Your task to perform on an android device: open device folders in google photos Image 0: 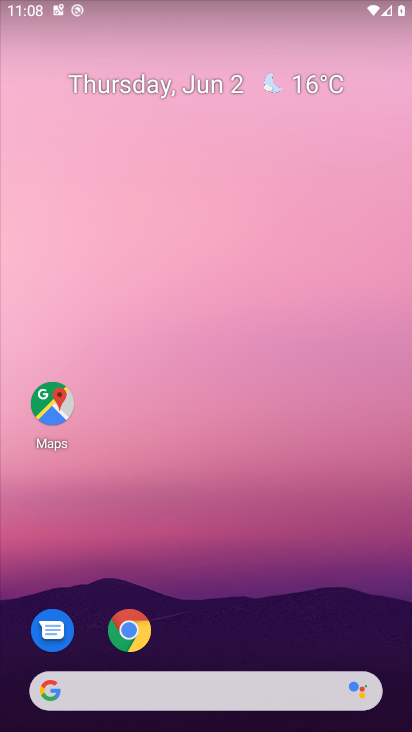
Step 0: drag from (220, 651) to (244, 150)
Your task to perform on an android device: open device folders in google photos Image 1: 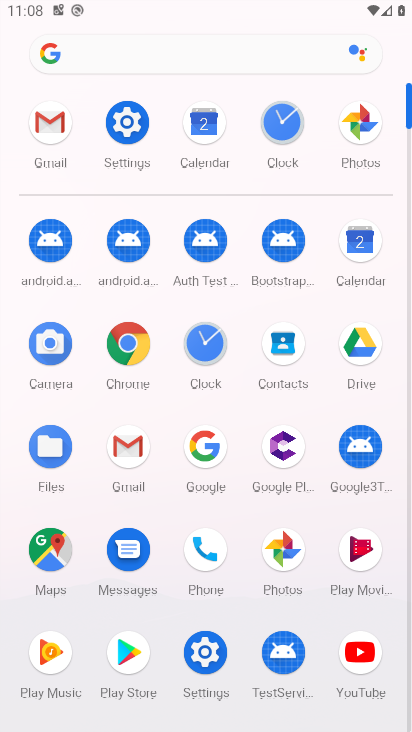
Step 1: click (285, 563)
Your task to perform on an android device: open device folders in google photos Image 2: 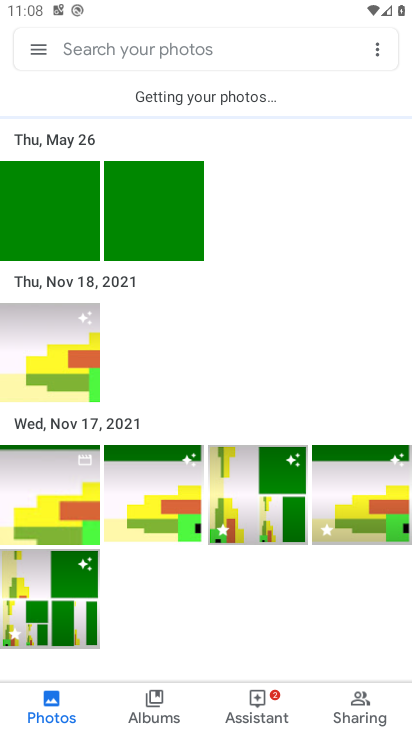
Step 2: click (34, 51)
Your task to perform on an android device: open device folders in google photos Image 3: 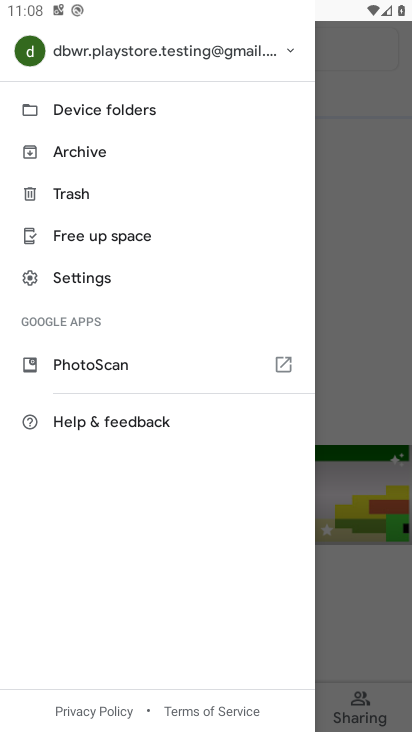
Step 3: click (82, 100)
Your task to perform on an android device: open device folders in google photos Image 4: 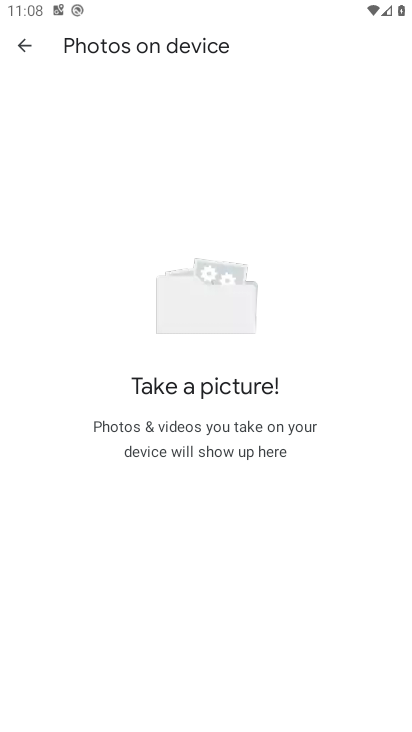
Step 4: task complete